Your task to perform on an android device: uninstall "Facebook" Image 0: 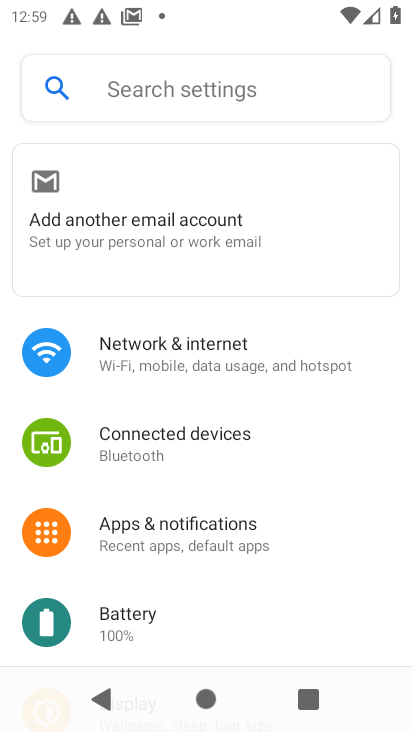
Step 0: press home button
Your task to perform on an android device: uninstall "Facebook" Image 1: 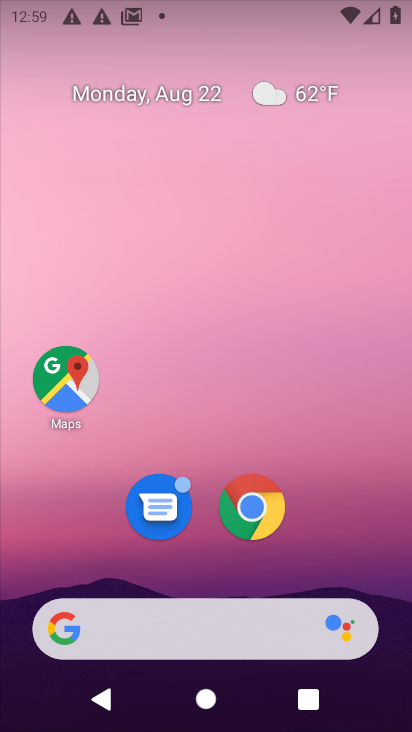
Step 1: drag from (370, 567) to (336, 92)
Your task to perform on an android device: uninstall "Facebook" Image 2: 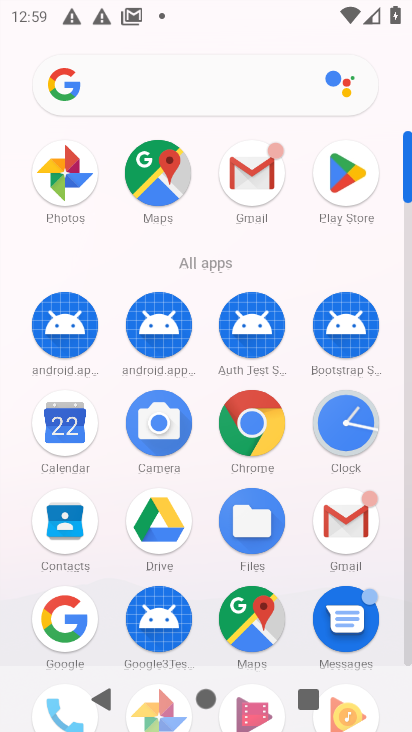
Step 2: drag from (211, 578) to (208, 218)
Your task to perform on an android device: uninstall "Facebook" Image 3: 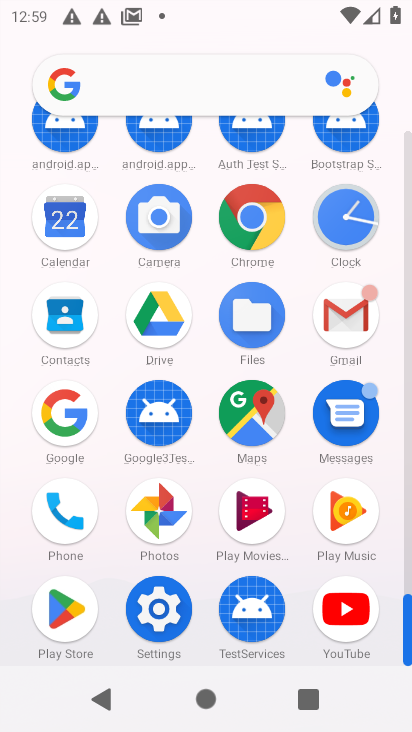
Step 3: click (60, 606)
Your task to perform on an android device: uninstall "Facebook" Image 4: 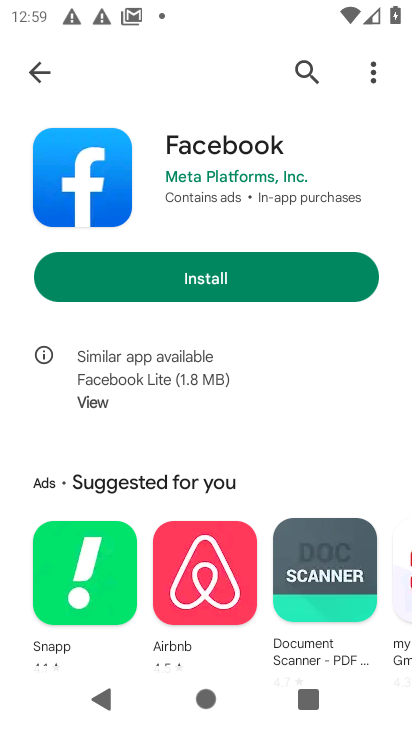
Step 4: click (369, 78)
Your task to perform on an android device: uninstall "Facebook" Image 5: 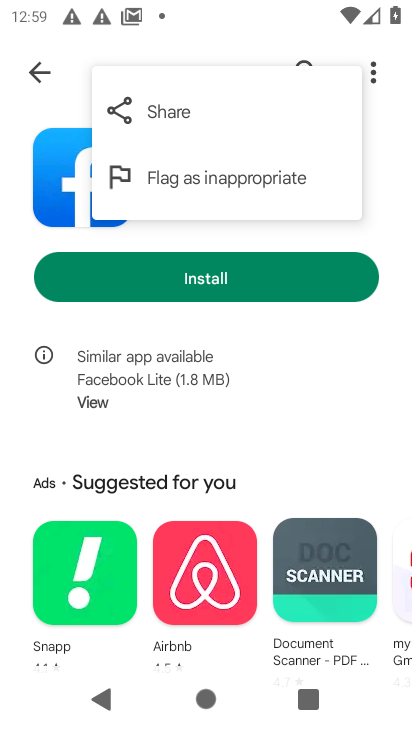
Step 5: click (167, 437)
Your task to perform on an android device: uninstall "Facebook" Image 6: 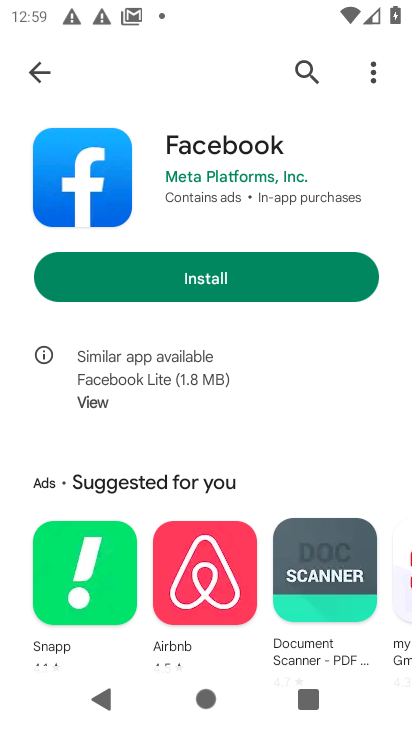
Step 6: task complete